Your task to perform on an android device: Check the news Image 0: 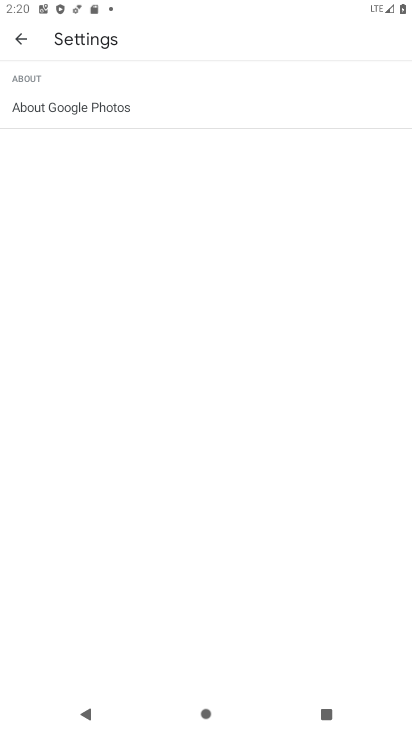
Step 0: press home button
Your task to perform on an android device: Check the news Image 1: 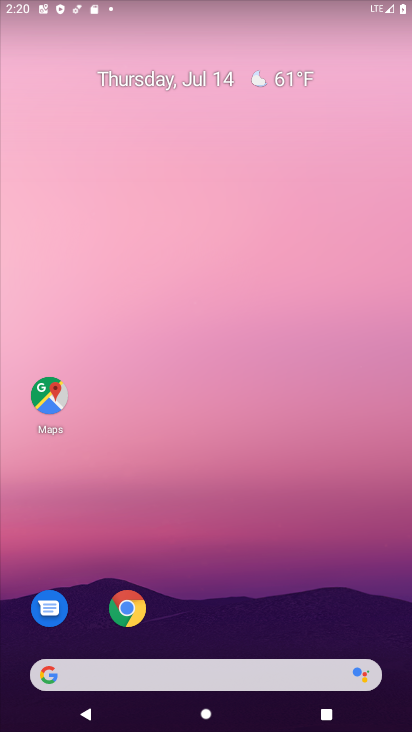
Step 1: drag from (223, 655) to (222, 373)
Your task to perform on an android device: Check the news Image 2: 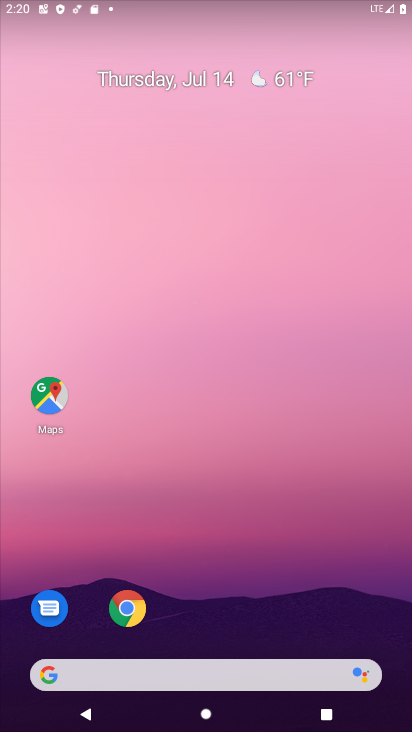
Step 2: drag from (250, 634) to (254, 293)
Your task to perform on an android device: Check the news Image 3: 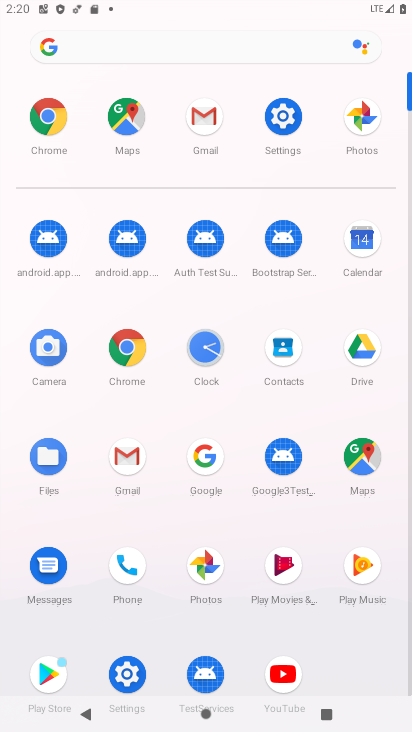
Step 3: click (209, 452)
Your task to perform on an android device: Check the news Image 4: 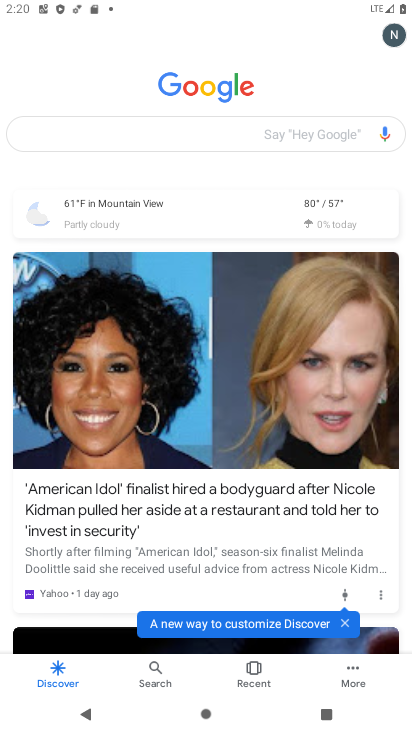
Step 4: click (103, 134)
Your task to perform on an android device: Check the news Image 5: 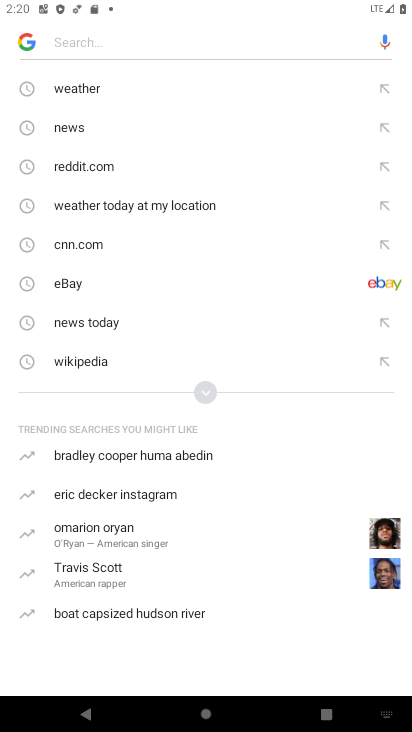
Step 5: click (69, 130)
Your task to perform on an android device: Check the news Image 6: 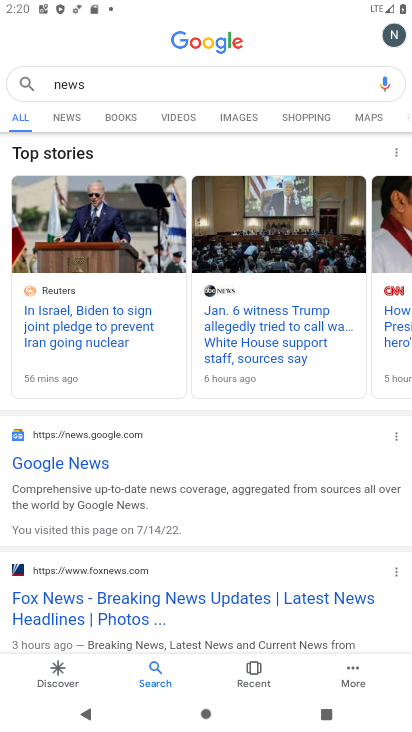
Step 6: task complete